Your task to perform on an android device: turn off notifications in google photos Image 0: 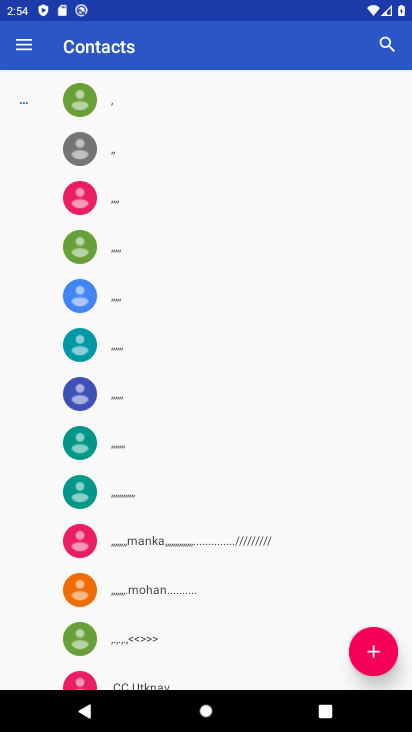
Step 0: press home button
Your task to perform on an android device: turn off notifications in google photos Image 1: 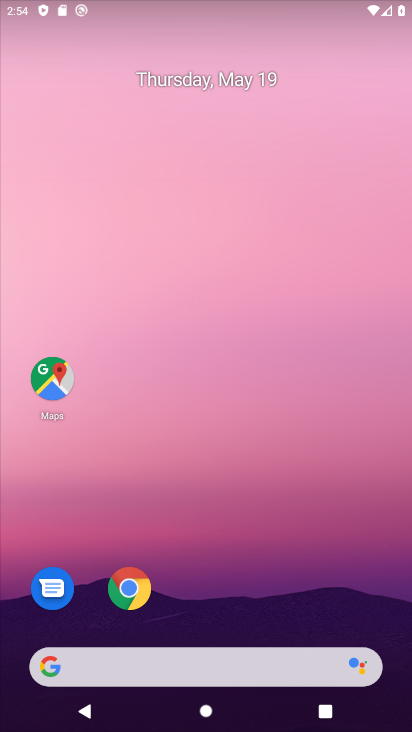
Step 1: drag from (346, 586) to (266, 106)
Your task to perform on an android device: turn off notifications in google photos Image 2: 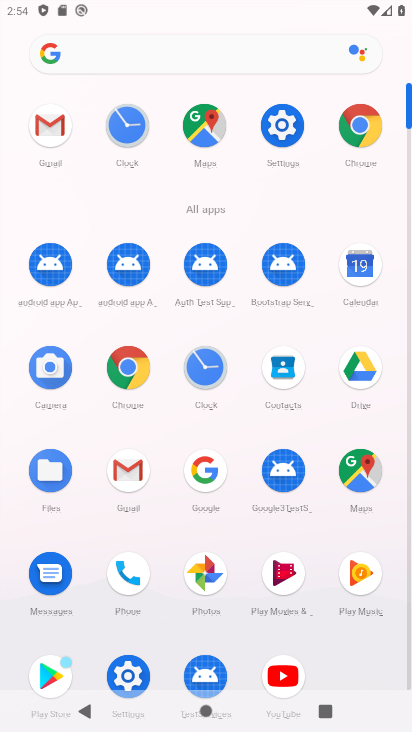
Step 2: click (220, 572)
Your task to perform on an android device: turn off notifications in google photos Image 3: 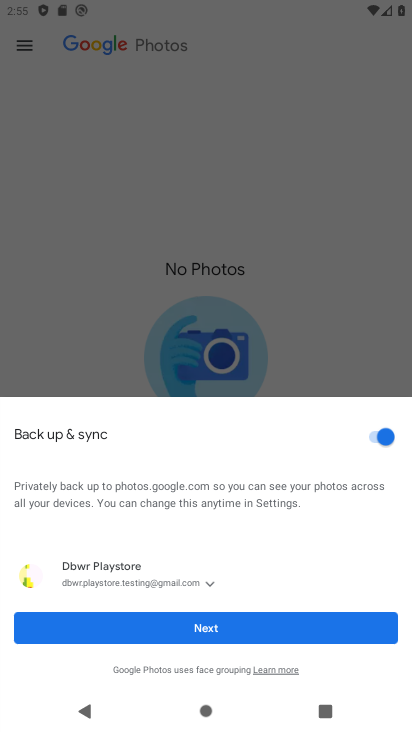
Step 3: click (224, 630)
Your task to perform on an android device: turn off notifications in google photos Image 4: 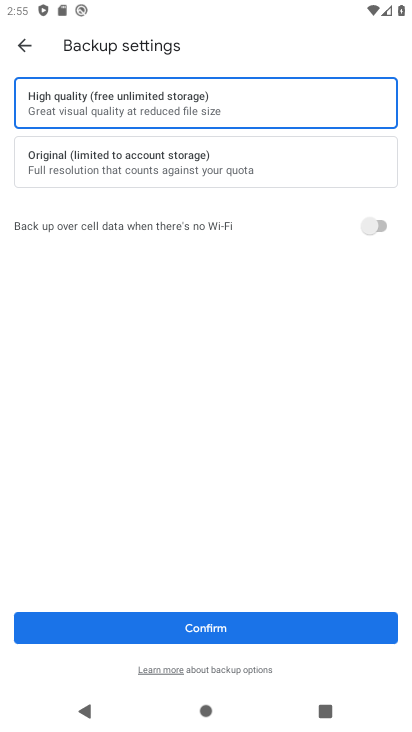
Step 4: click (35, 47)
Your task to perform on an android device: turn off notifications in google photos Image 5: 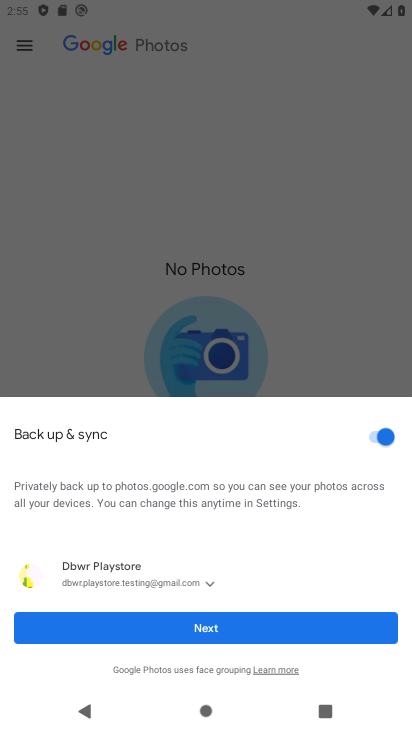
Step 5: click (230, 638)
Your task to perform on an android device: turn off notifications in google photos Image 6: 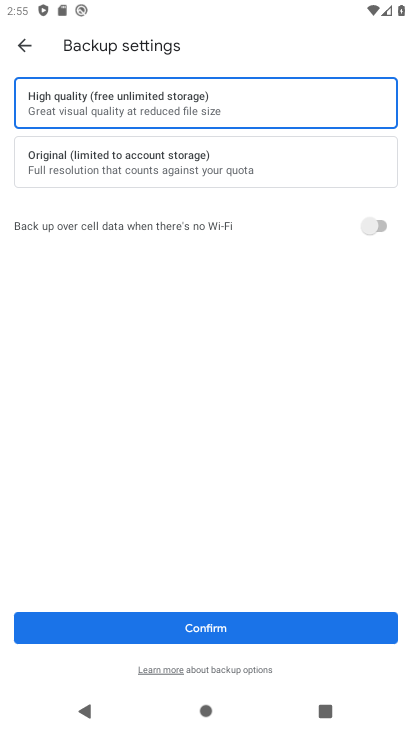
Step 6: click (232, 635)
Your task to perform on an android device: turn off notifications in google photos Image 7: 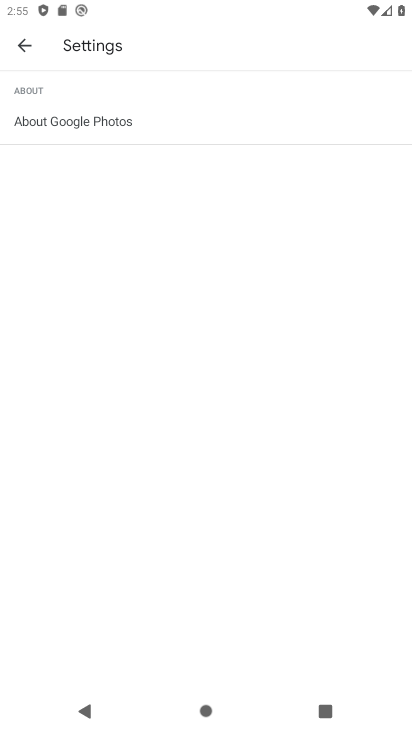
Step 7: click (23, 51)
Your task to perform on an android device: turn off notifications in google photos Image 8: 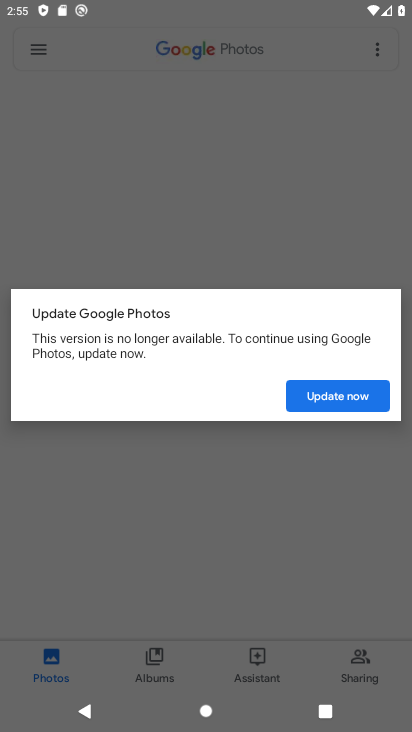
Step 8: click (332, 399)
Your task to perform on an android device: turn off notifications in google photos Image 9: 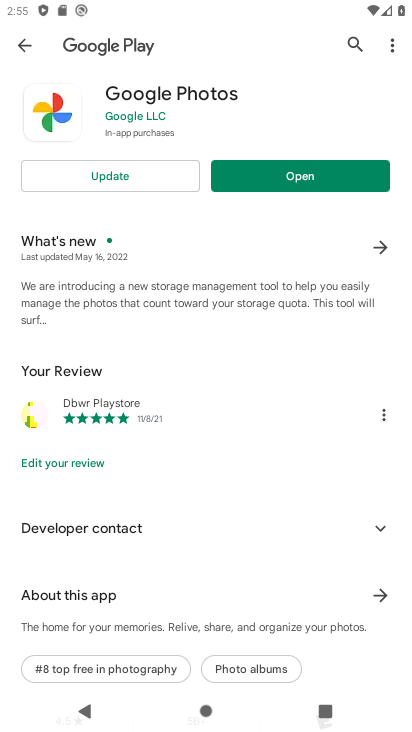
Step 9: click (134, 187)
Your task to perform on an android device: turn off notifications in google photos Image 10: 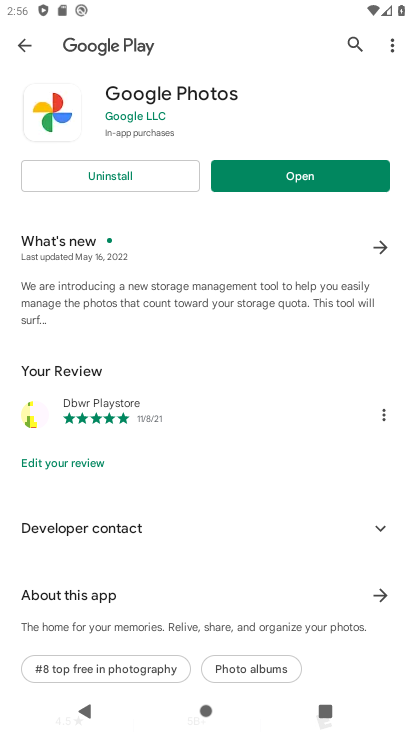
Step 10: click (303, 184)
Your task to perform on an android device: turn off notifications in google photos Image 11: 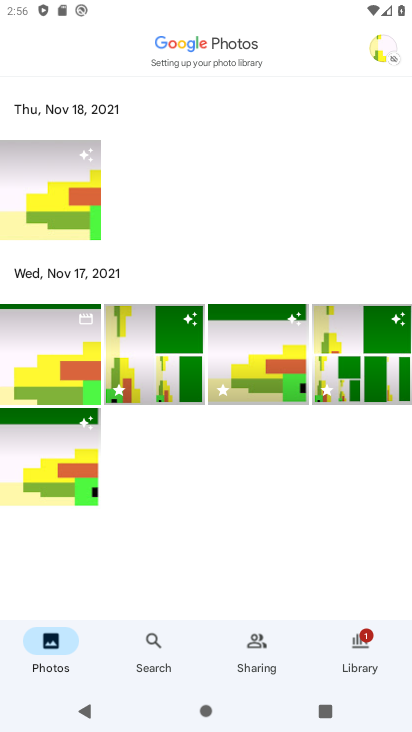
Step 11: click (381, 52)
Your task to perform on an android device: turn off notifications in google photos Image 12: 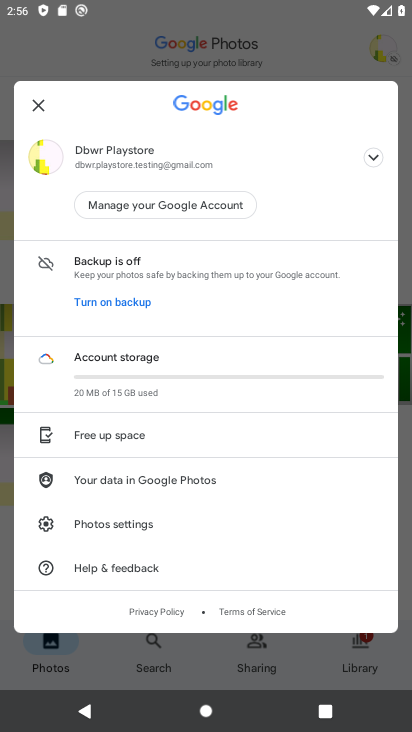
Step 12: click (126, 527)
Your task to perform on an android device: turn off notifications in google photos Image 13: 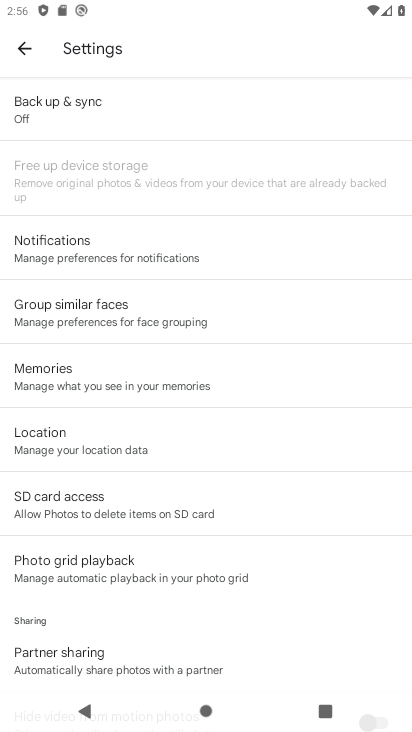
Step 13: click (123, 250)
Your task to perform on an android device: turn off notifications in google photos Image 14: 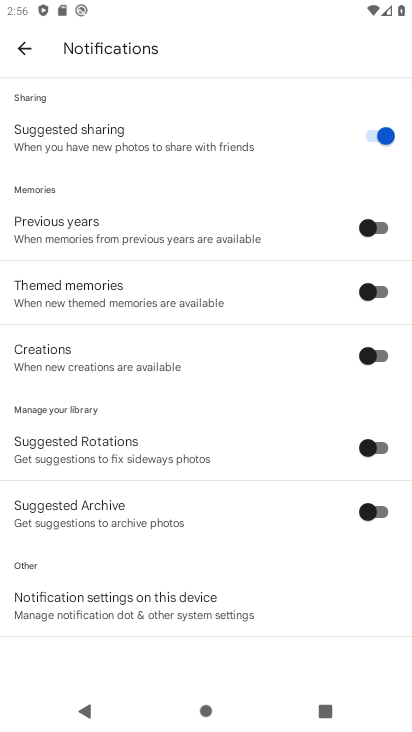
Step 14: click (191, 607)
Your task to perform on an android device: turn off notifications in google photos Image 15: 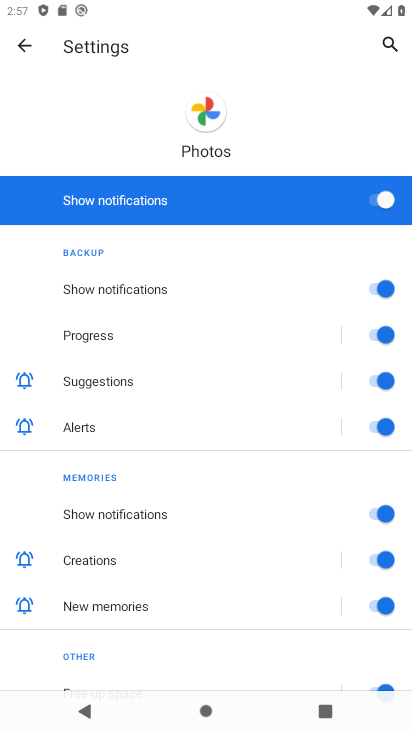
Step 15: click (376, 210)
Your task to perform on an android device: turn off notifications in google photos Image 16: 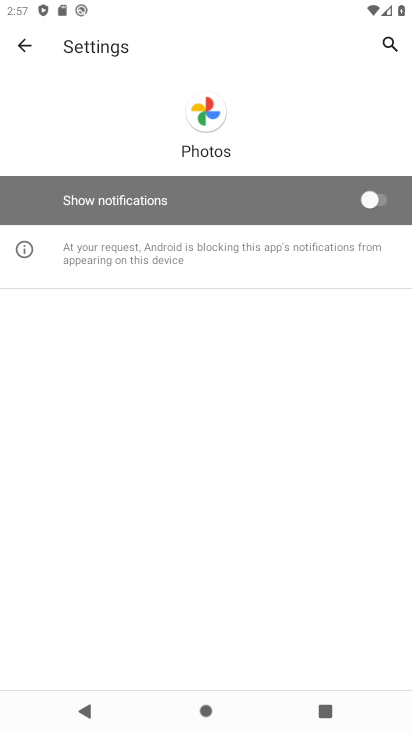
Step 16: task complete